Your task to perform on an android device: turn on notifications settings in the gmail app Image 0: 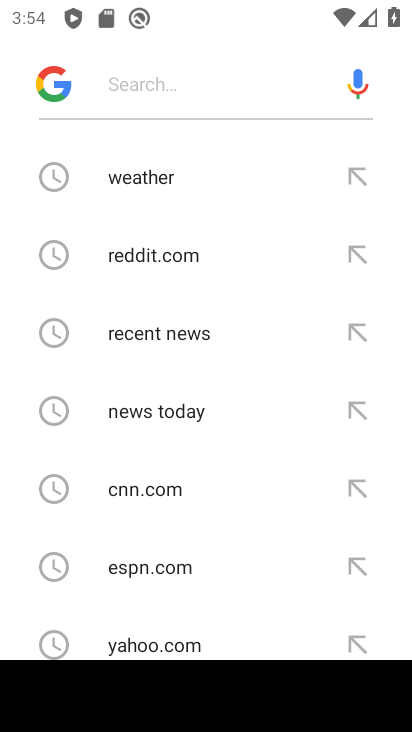
Step 0: press home button
Your task to perform on an android device: turn on notifications settings in the gmail app Image 1: 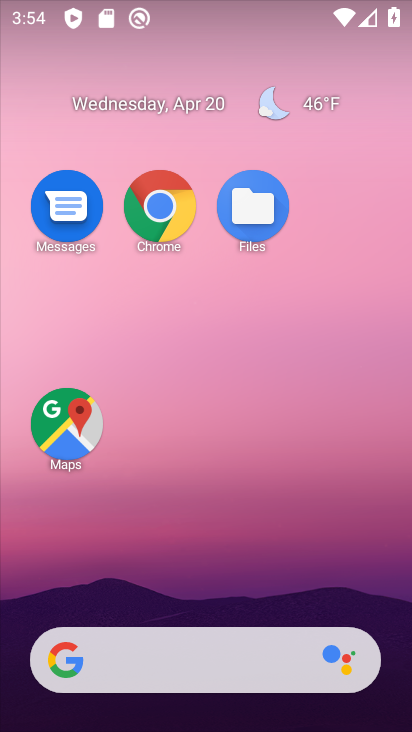
Step 1: drag from (179, 569) to (260, 6)
Your task to perform on an android device: turn on notifications settings in the gmail app Image 2: 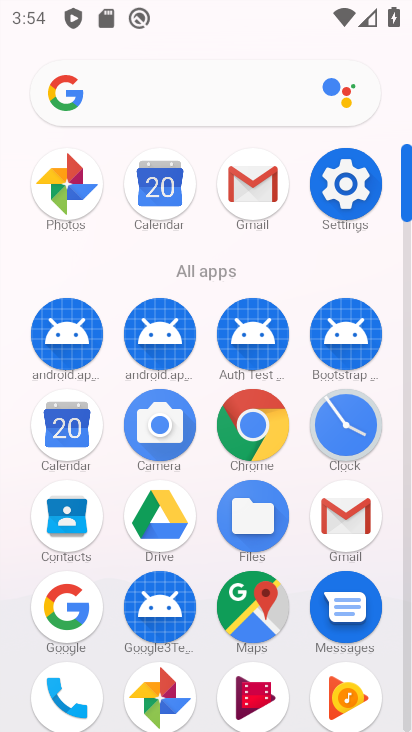
Step 2: click (351, 516)
Your task to perform on an android device: turn on notifications settings in the gmail app Image 3: 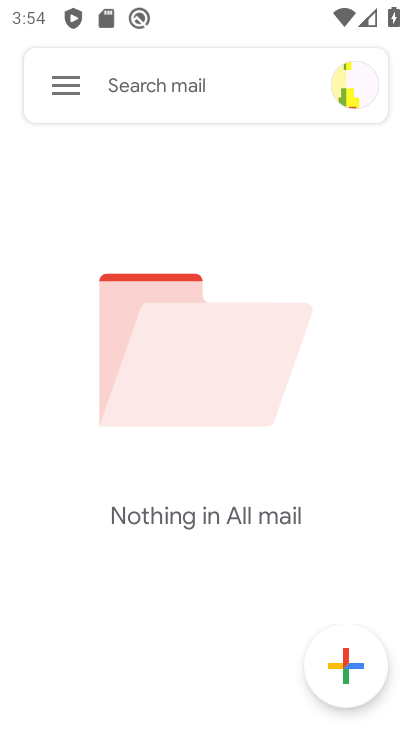
Step 3: click (64, 97)
Your task to perform on an android device: turn on notifications settings in the gmail app Image 4: 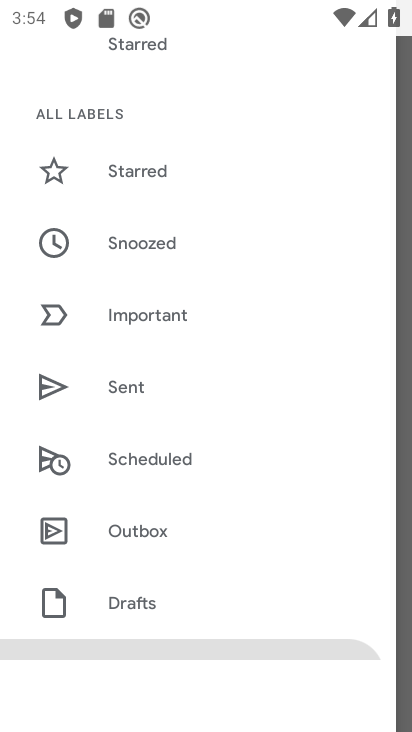
Step 4: drag from (168, 529) to (264, 38)
Your task to perform on an android device: turn on notifications settings in the gmail app Image 5: 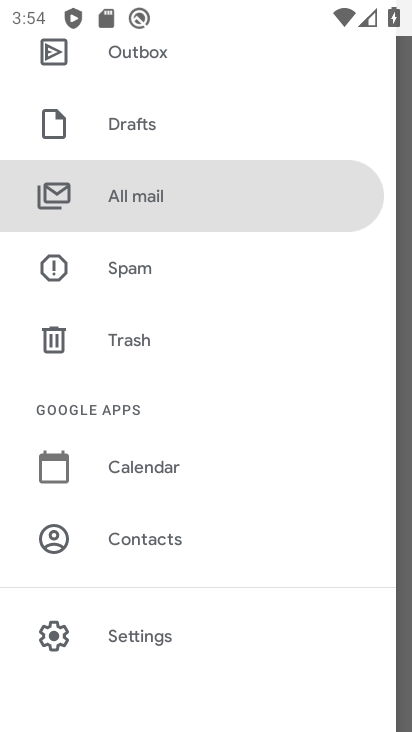
Step 5: click (150, 645)
Your task to perform on an android device: turn on notifications settings in the gmail app Image 6: 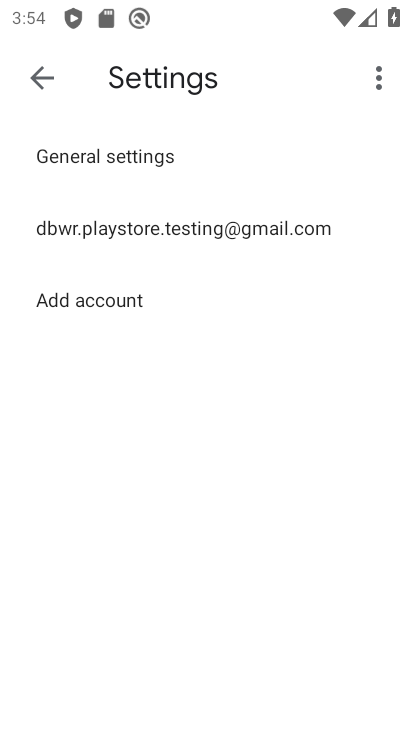
Step 6: click (114, 150)
Your task to perform on an android device: turn on notifications settings in the gmail app Image 7: 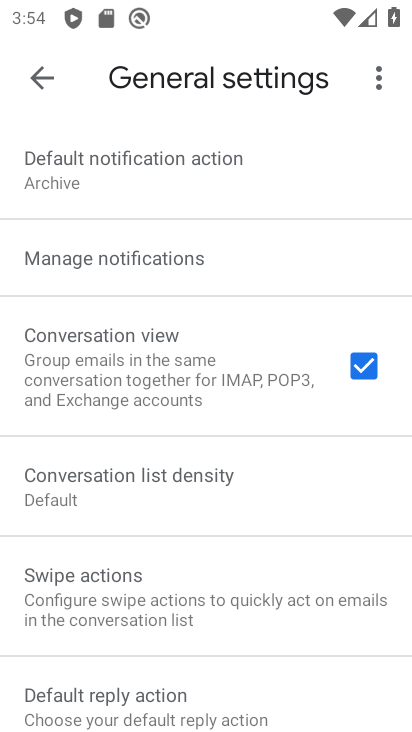
Step 7: click (108, 266)
Your task to perform on an android device: turn on notifications settings in the gmail app Image 8: 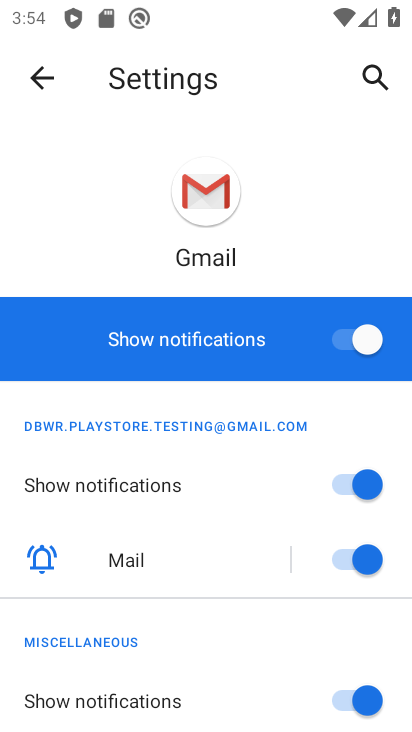
Step 8: task complete